Your task to perform on an android device: Open Google Maps Image 0: 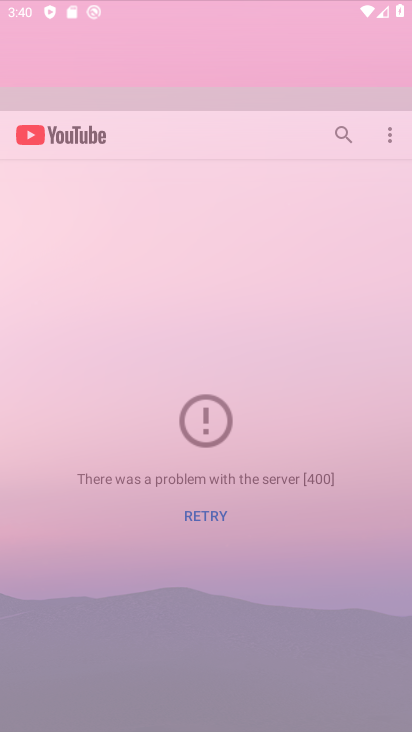
Step 0: drag from (256, 463) to (243, 32)
Your task to perform on an android device: Open Google Maps Image 1: 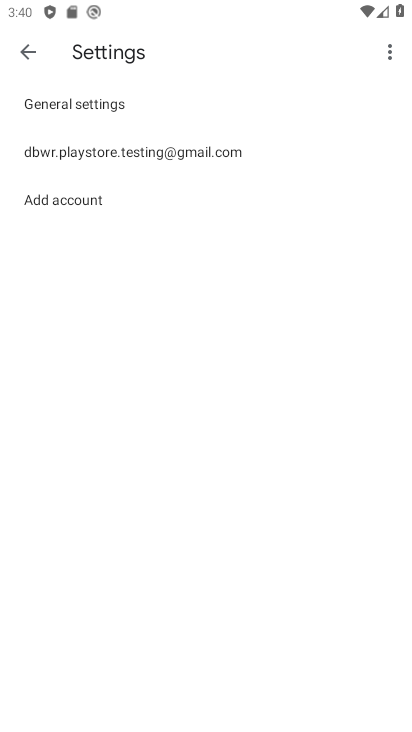
Step 1: press back button
Your task to perform on an android device: Open Google Maps Image 2: 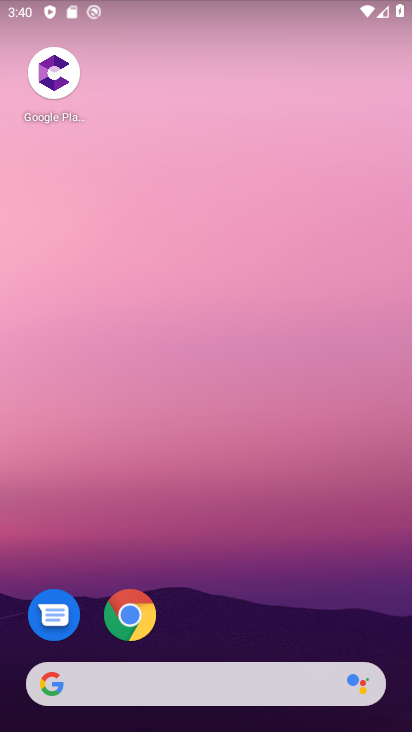
Step 2: drag from (250, 505) to (226, 8)
Your task to perform on an android device: Open Google Maps Image 3: 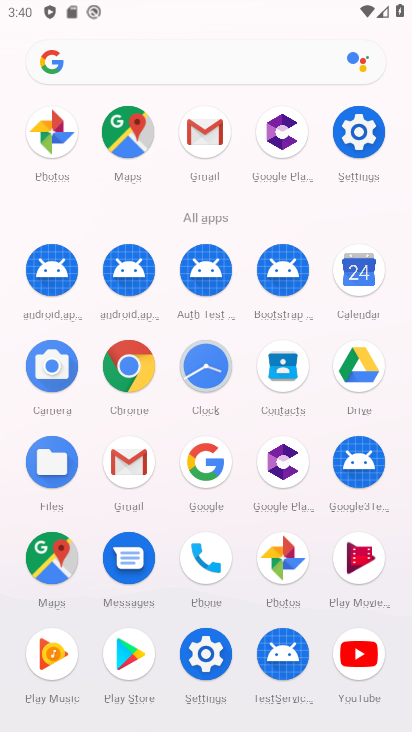
Step 3: click (47, 559)
Your task to perform on an android device: Open Google Maps Image 4: 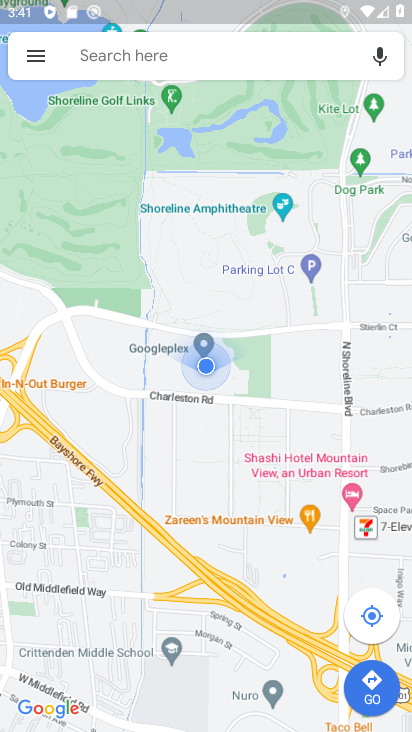
Step 4: task complete